Your task to perform on an android device: turn off translation in the chrome app Image 0: 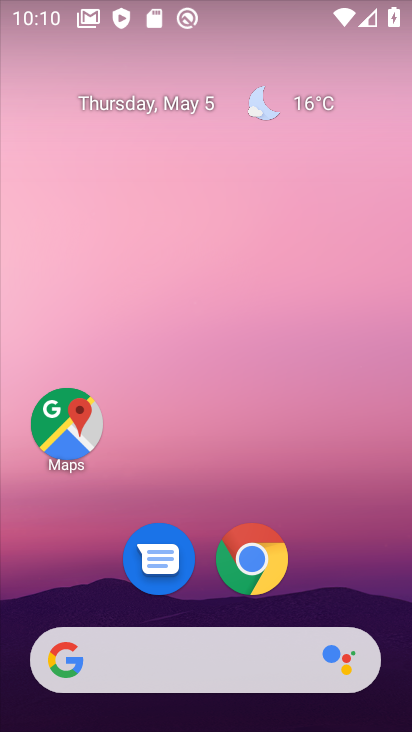
Step 0: drag from (378, 597) to (301, 216)
Your task to perform on an android device: turn off translation in the chrome app Image 1: 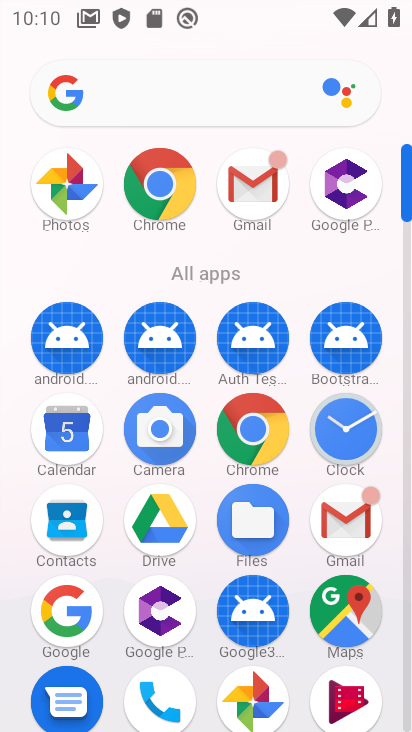
Step 1: click (159, 178)
Your task to perform on an android device: turn off translation in the chrome app Image 2: 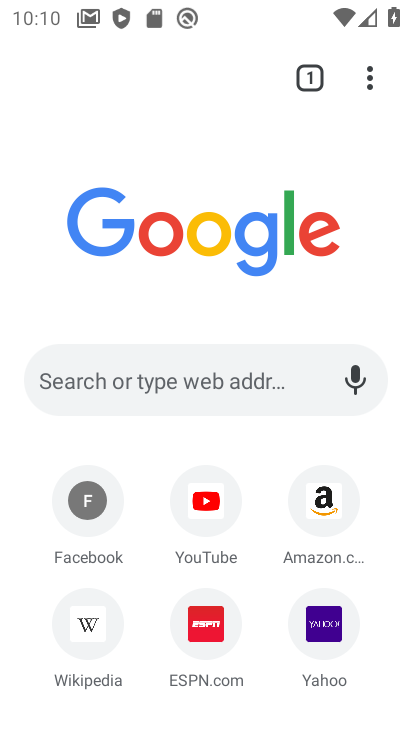
Step 2: click (363, 100)
Your task to perform on an android device: turn off translation in the chrome app Image 3: 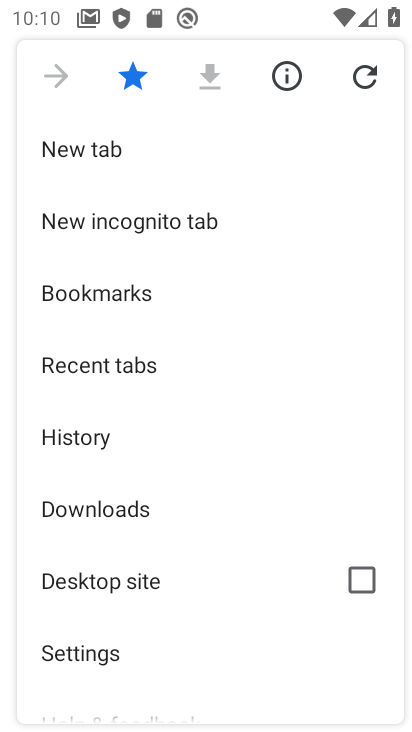
Step 3: drag from (236, 652) to (237, 404)
Your task to perform on an android device: turn off translation in the chrome app Image 4: 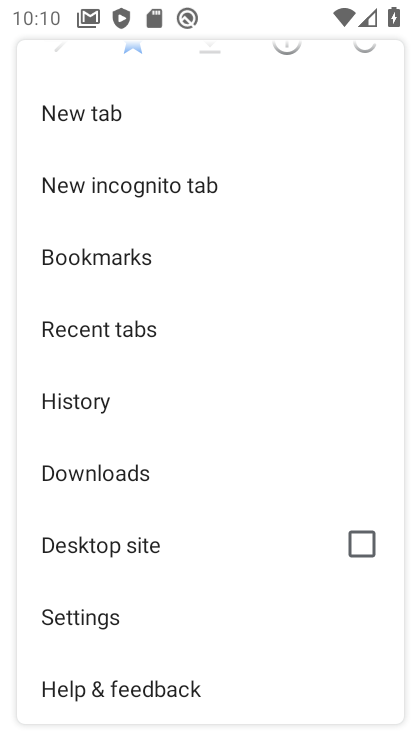
Step 4: click (208, 632)
Your task to perform on an android device: turn off translation in the chrome app Image 5: 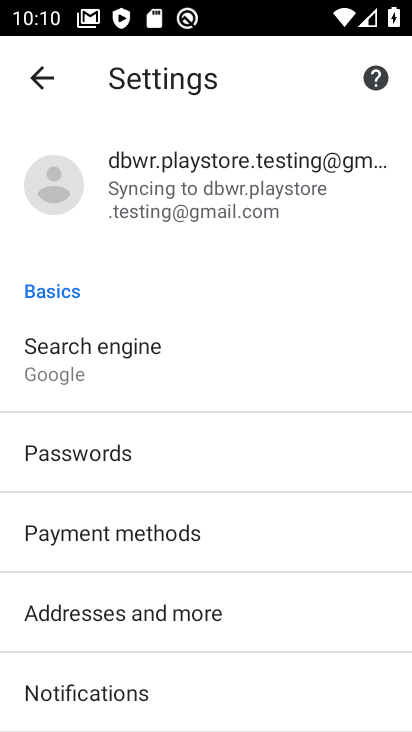
Step 5: drag from (221, 661) to (207, 345)
Your task to perform on an android device: turn off translation in the chrome app Image 6: 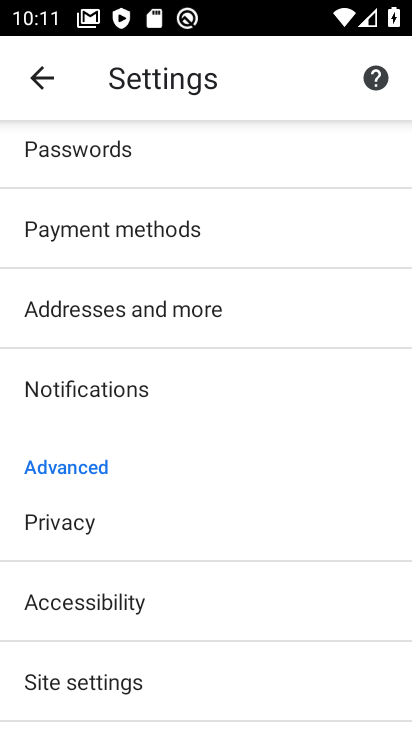
Step 6: drag from (240, 641) to (223, 364)
Your task to perform on an android device: turn off translation in the chrome app Image 7: 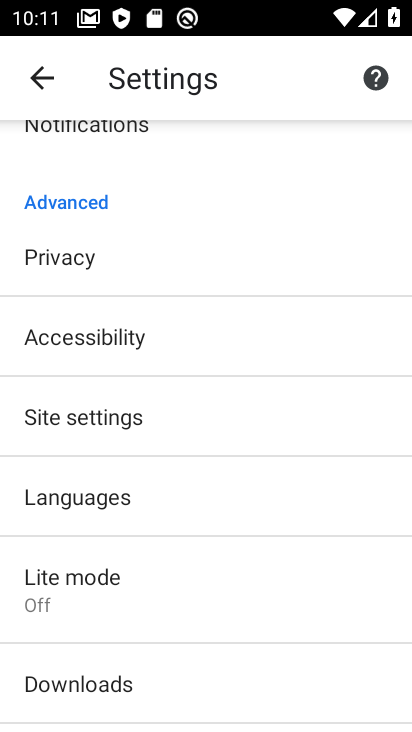
Step 7: click (233, 502)
Your task to perform on an android device: turn off translation in the chrome app Image 8: 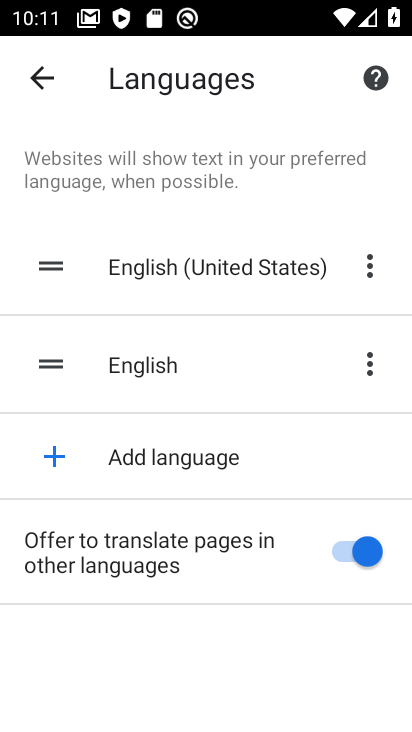
Step 8: click (336, 554)
Your task to perform on an android device: turn off translation in the chrome app Image 9: 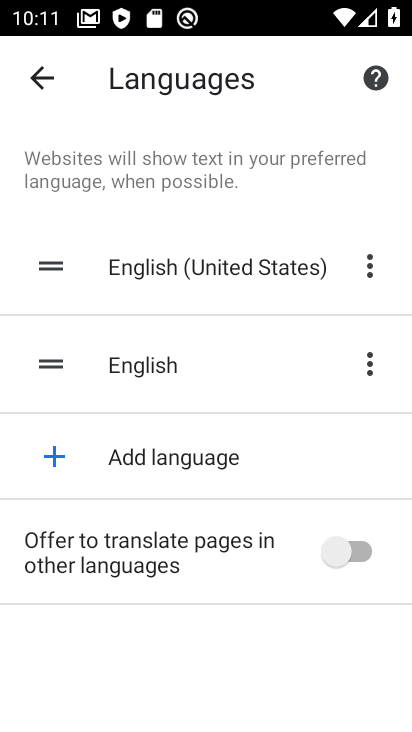
Step 9: task complete